Your task to perform on an android device: turn on javascript in the chrome app Image 0: 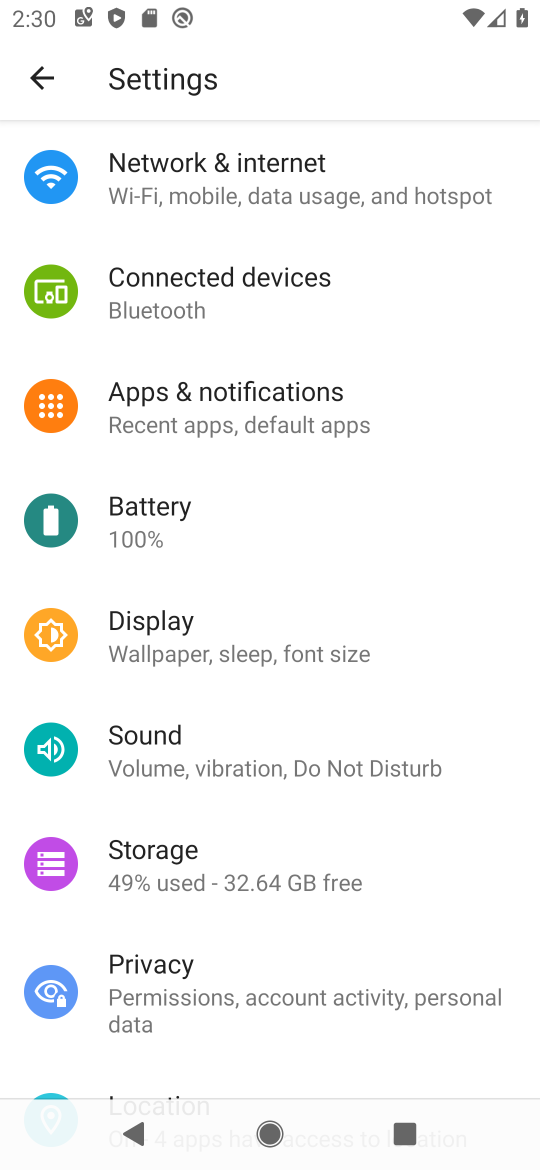
Step 0: press home button
Your task to perform on an android device: turn on javascript in the chrome app Image 1: 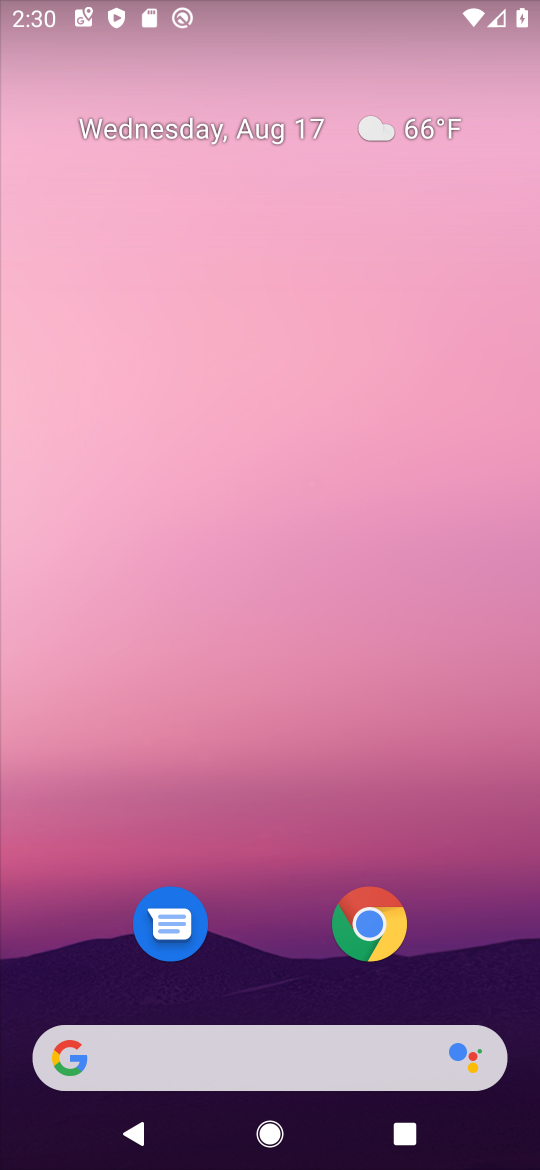
Step 1: click (372, 929)
Your task to perform on an android device: turn on javascript in the chrome app Image 2: 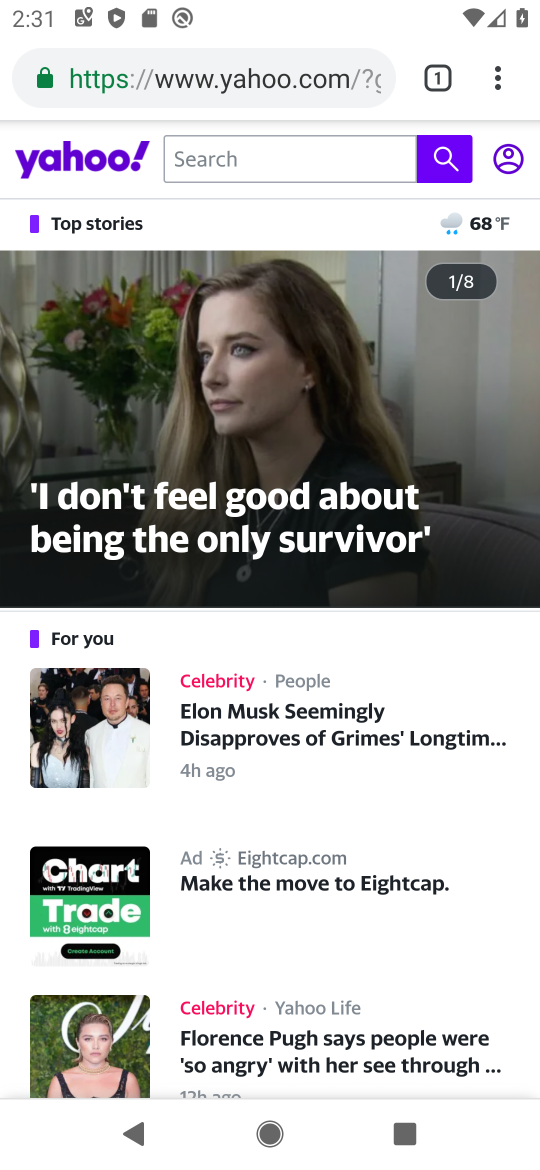
Step 2: click (508, 86)
Your task to perform on an android device: turn on javascript in the chrome app Image 3: 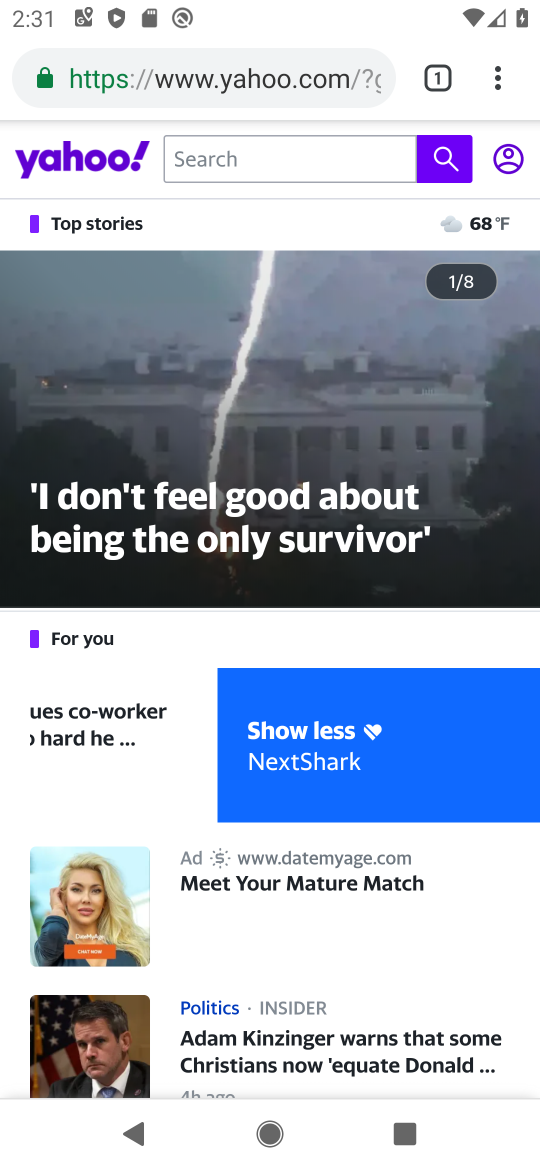
Step 3: click (531, 81)
Your task to perform on an android device: turn on javascript in the chrome app Image 4: 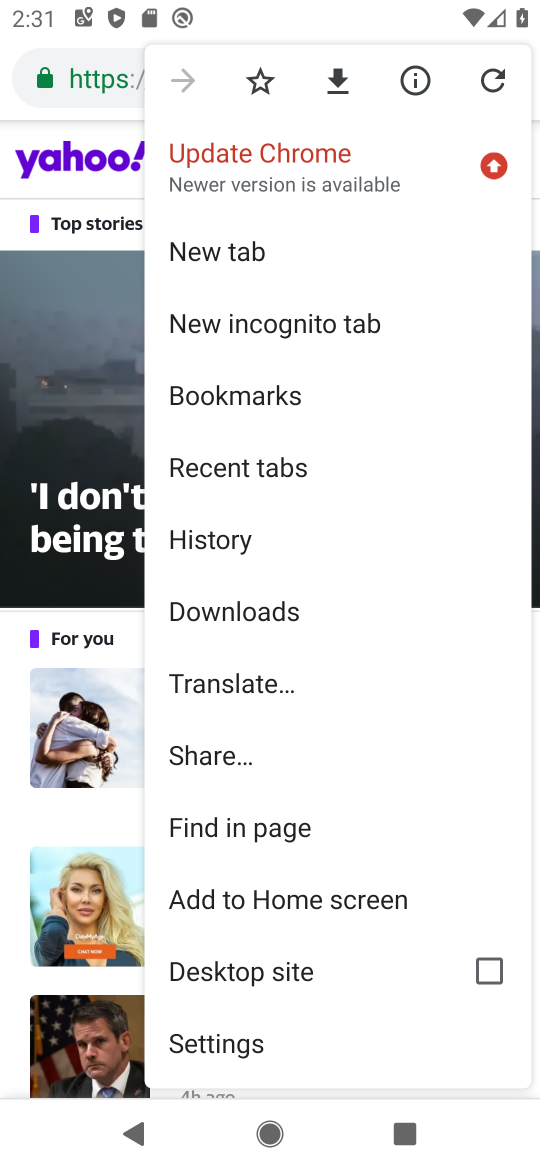
Step 4: click (250, 1041)
Your task to perform on an android device: turn on javascript in the chrome app Image 5: 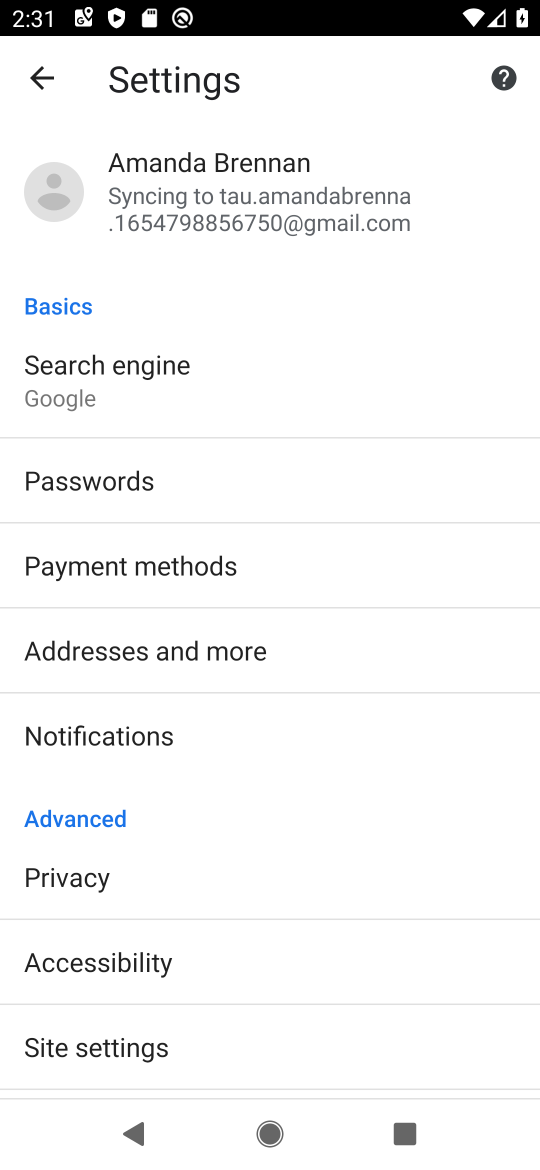
Step 5: click (157, 1045)
Your task to perform on an android device: turn on javascript in the chrome app Image 6: 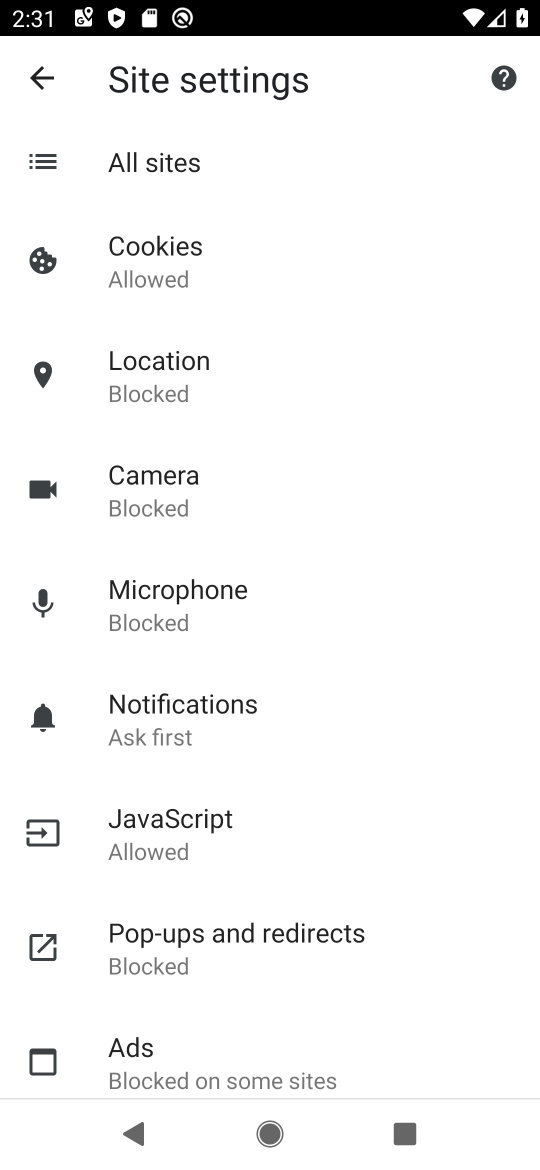
Step 6: click (224, 839)
Your task to perform on an android device: turn on javascript in the chrome app Image 7: 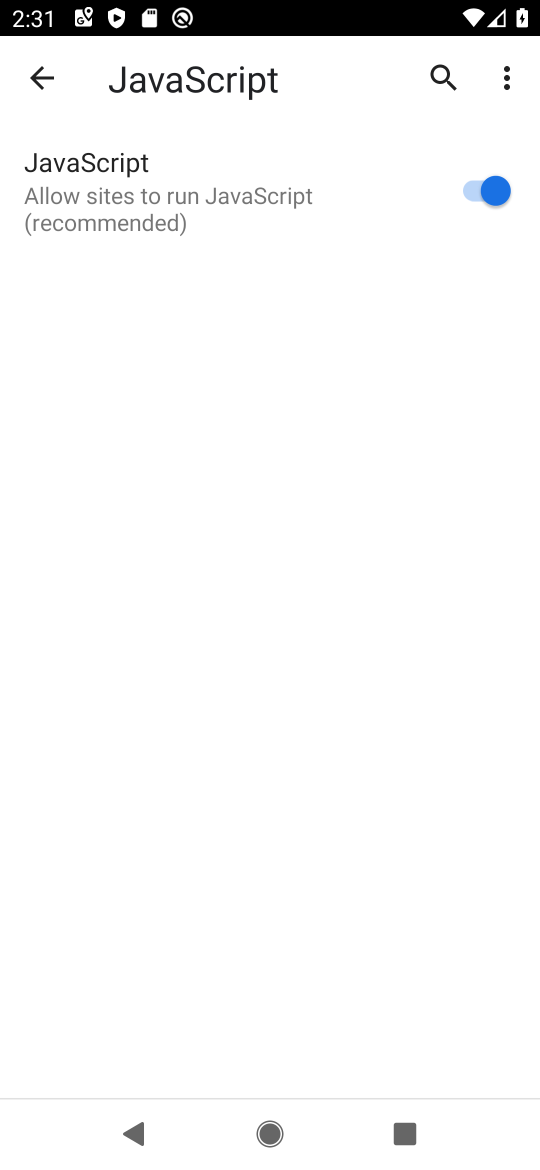
Step 7: task complete